Your task to perform on an android device: change the clock display to digital Image 0: 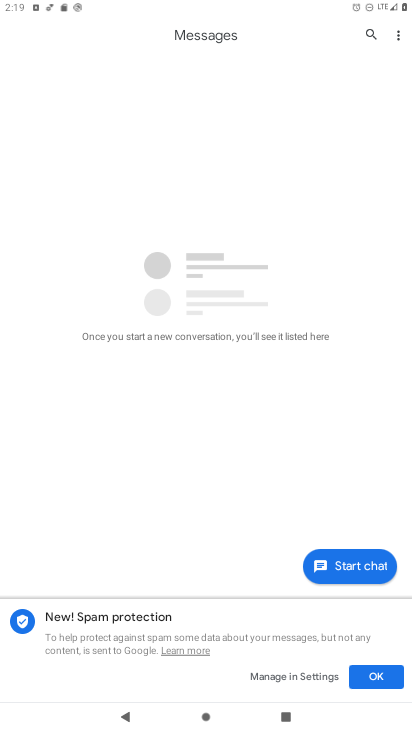
Step 0: press home button
Your task to perform on an android device: change the clock display to digital Image 1: 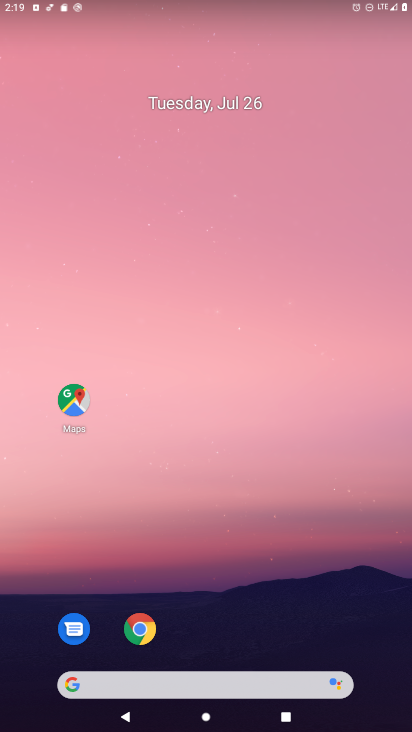
Step 1: drag from (389, 671) to (322, 192)
Your task to perform on an android device: change the clock display to digital Image 2: 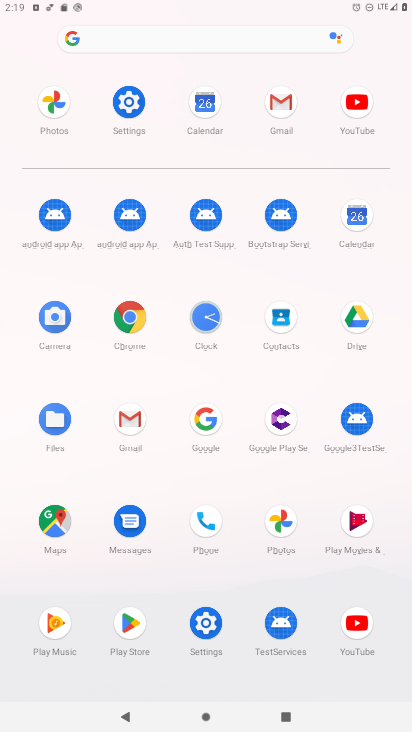
Step 2: click (205, 319)
Your task to perform on an android device: change the clock display to digital Image 3: 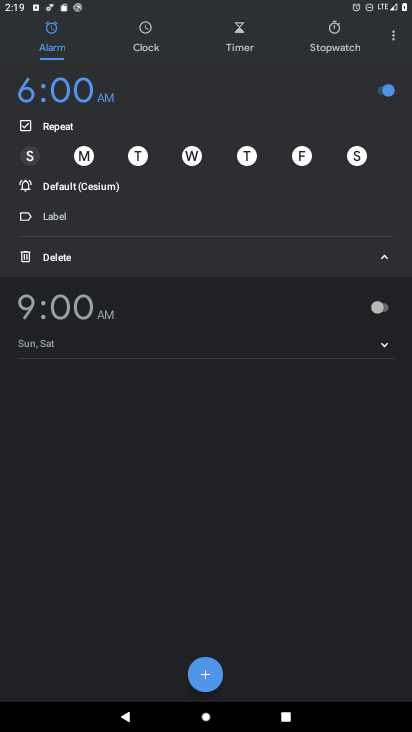
Step 3: click (392, 37)
Your task to perform on an android device: change the clock display to digital Image 4: 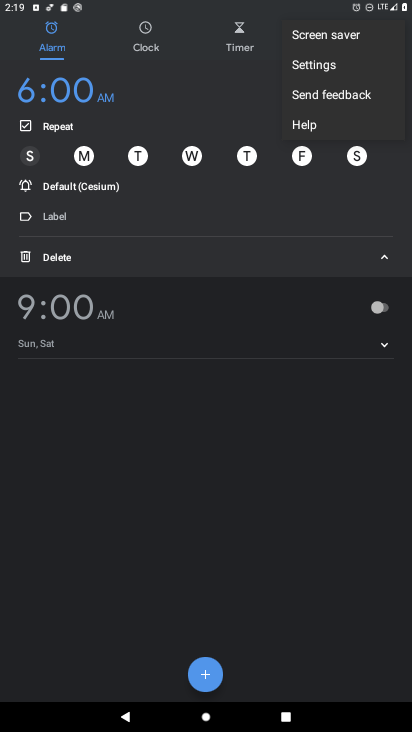
Step 4: click (319, 68)
Your task to perform on an android device: change the clock display to digital Image 5: 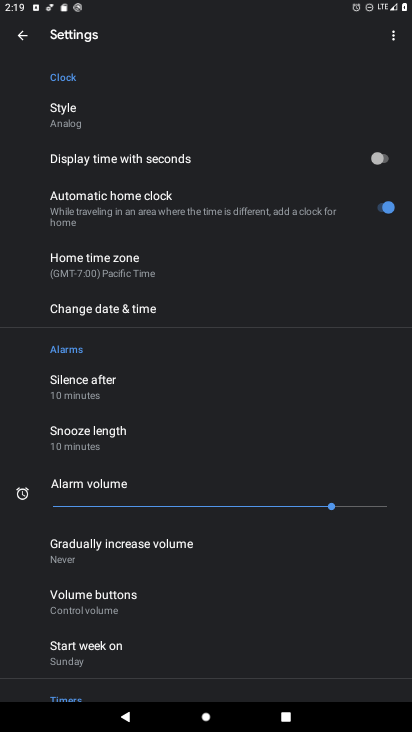
Step 5: click (75, 118)
Your task to perform on an android device: change the clock display to digital Image 6: 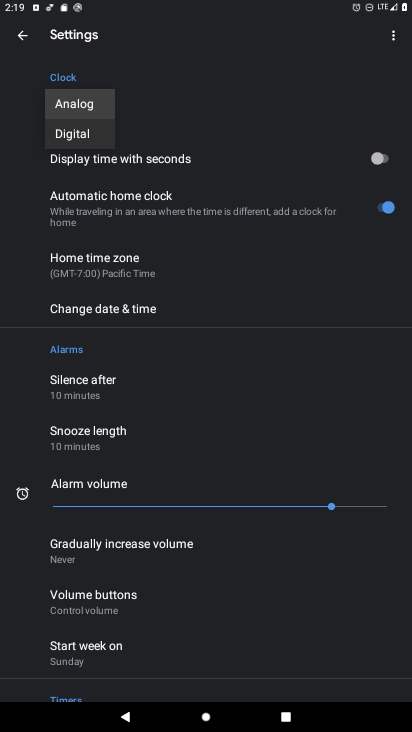
Step 6: click (79, 141)
Your task to perform on an android device: change the clock display to digital Image 7: 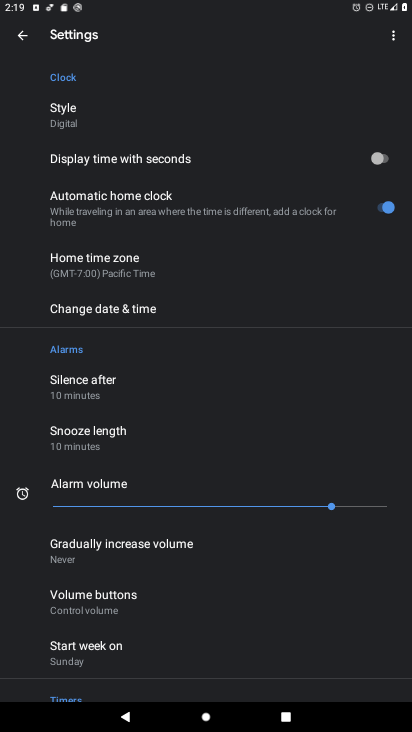
Step 7: task complete